Your task to perform on an android device: set default search engine in the chrome app Image 0: 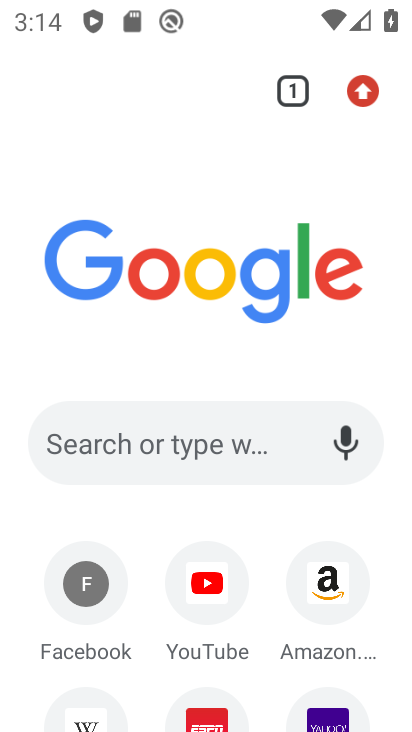
Step 0: press home button
Your task to perform on an android device: set default search engine in the chrome app Image 1: 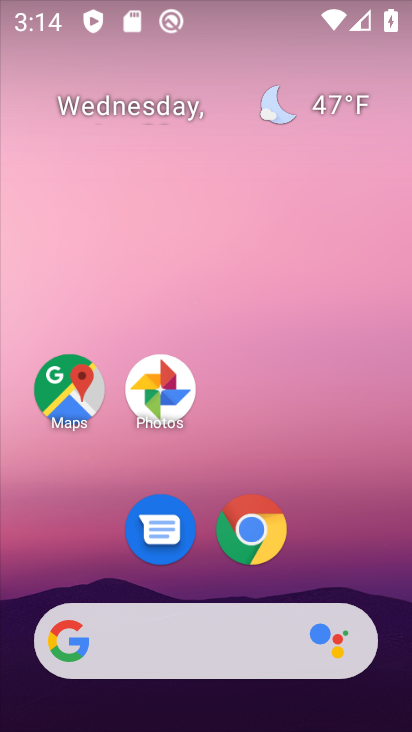
Step 1: click (257, 527)
Your task to perform on an android device: set default search engine in the chrome app Image 2: 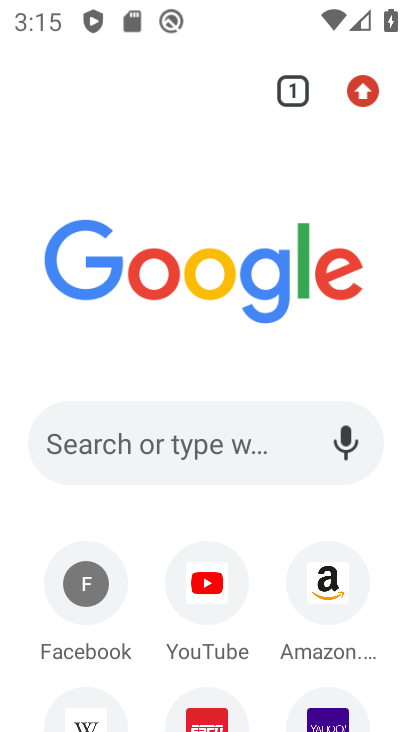
Step 2: press home button
Your task to perform on an android device: set default search engine in the chrome app Image 3: 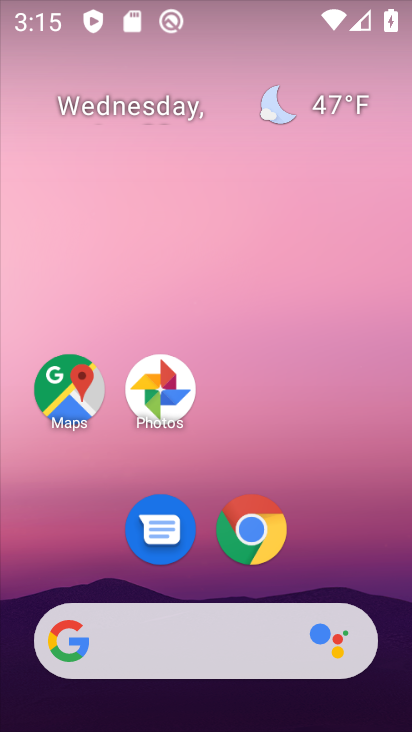
Step 3: click (257, 537)
Your task to perform on an android device: set default search engine in the chrome app Image 4: 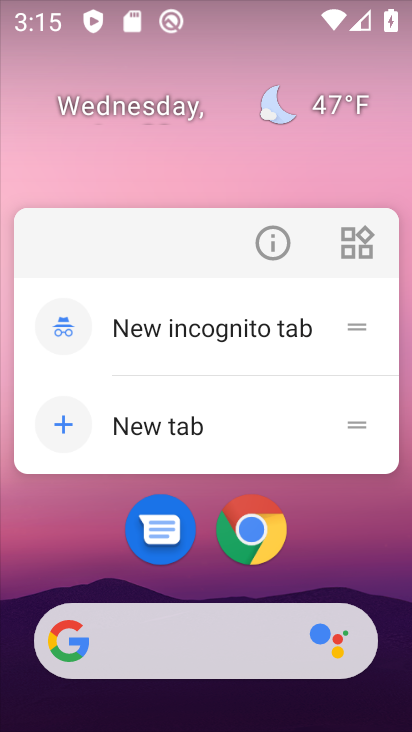
Step 4: click (256, 529)
Your task to perform on an android device: set default search engine in the chrome app Image 5: 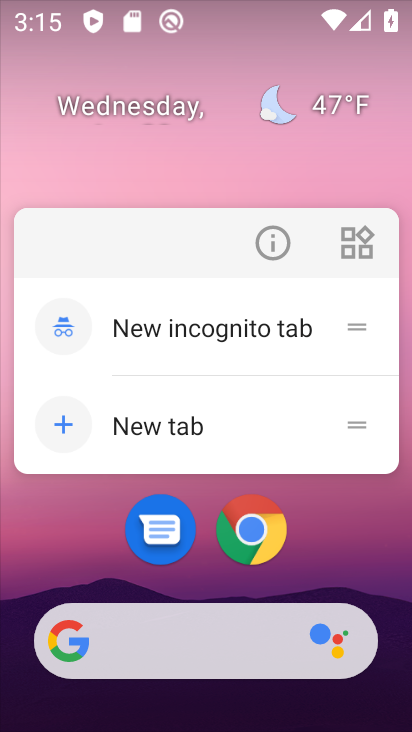
Step 5: click (275, 239)
Your task to perform on an android device: set default search engine in the chrome app Image 6: 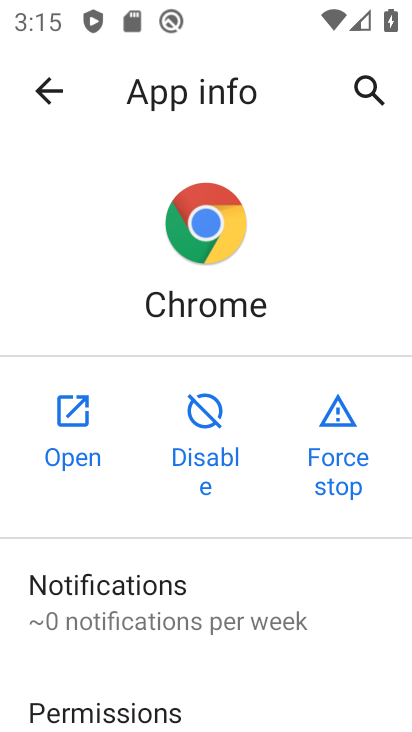
Step 6: click (85, 435)
Your task to perform on an android device: set default search engine in the chrome app Image 7: 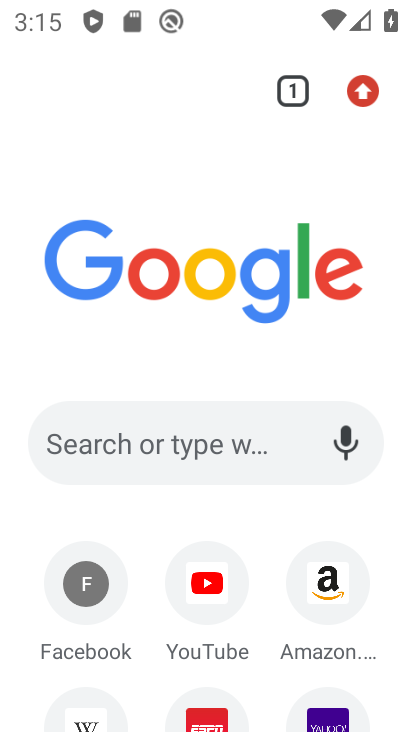
Step 7: click (360, 86)
Your task to perform on an android device: set default search engine in the chrome app Image 8: 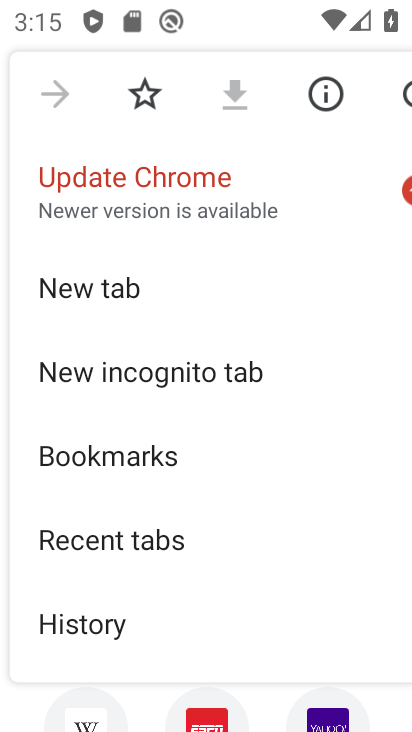
Step 8: drag from (190, 526) to (304, 271)
Your task to perform on an android device: set default search engine in the chrome app Image 9: 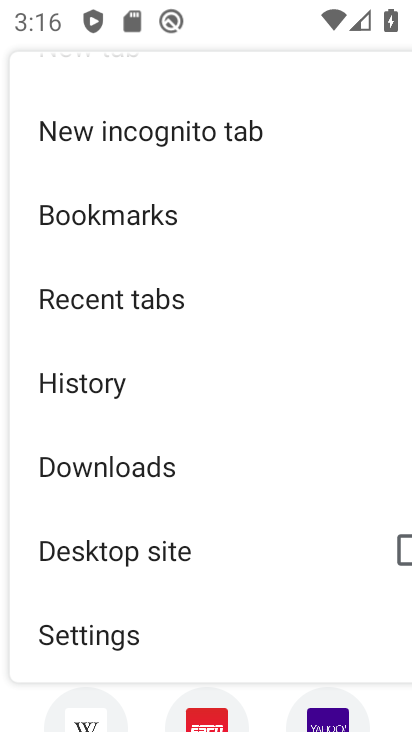
Step 9: click (114, 629)
Your task to perform on an android device: set default search engine in the chrome app Image 10: 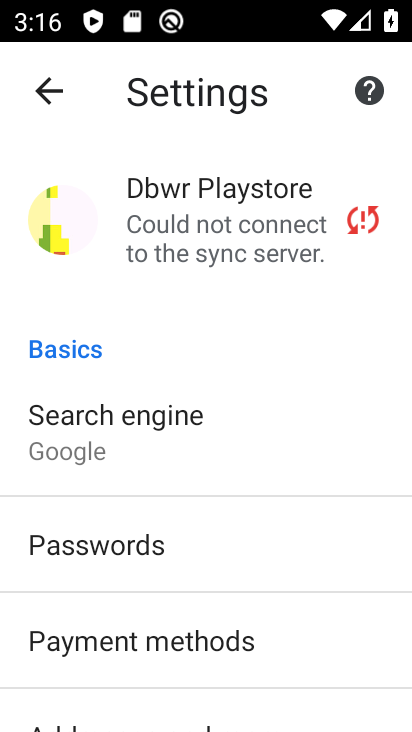
Step 10: drag from (101, 592) to (130, 491)
Your task to perform on an android device: set default search engine in the chrome app Image 11: 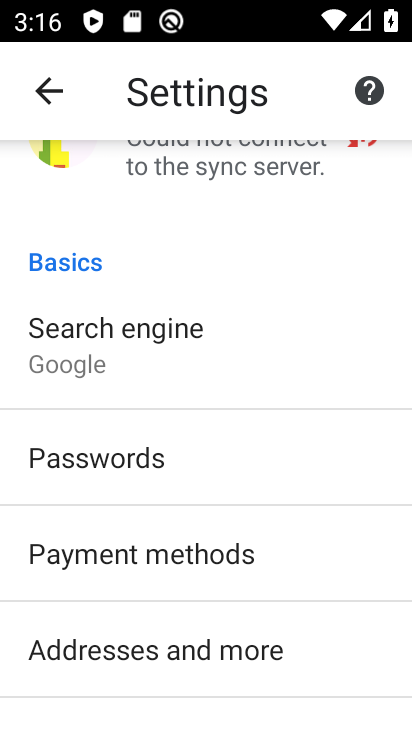
Step 11: click (100, 337)
Your task to perform on an android device: set default search engine in the chrome app Image 12: 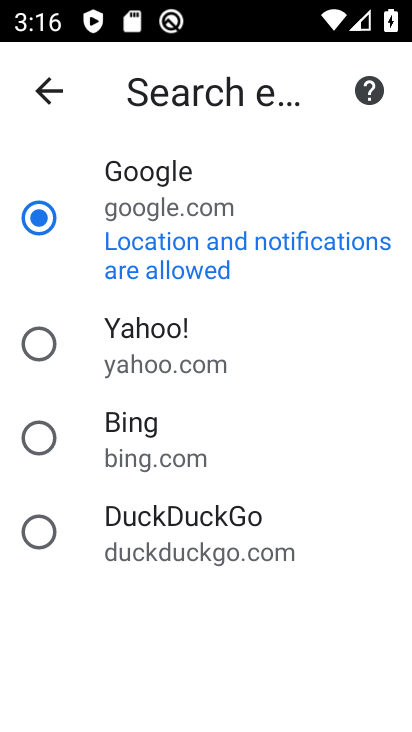
Step 12: click (41, 212)
Your task to perform on an android device: set default search engine in the chrome app Image 13: 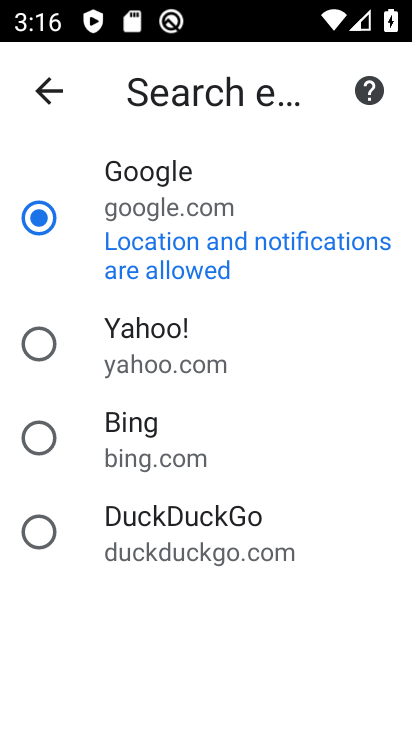
Step 13: task complete